Your task to perform on an android device: change the upload size in google photos Image 0: 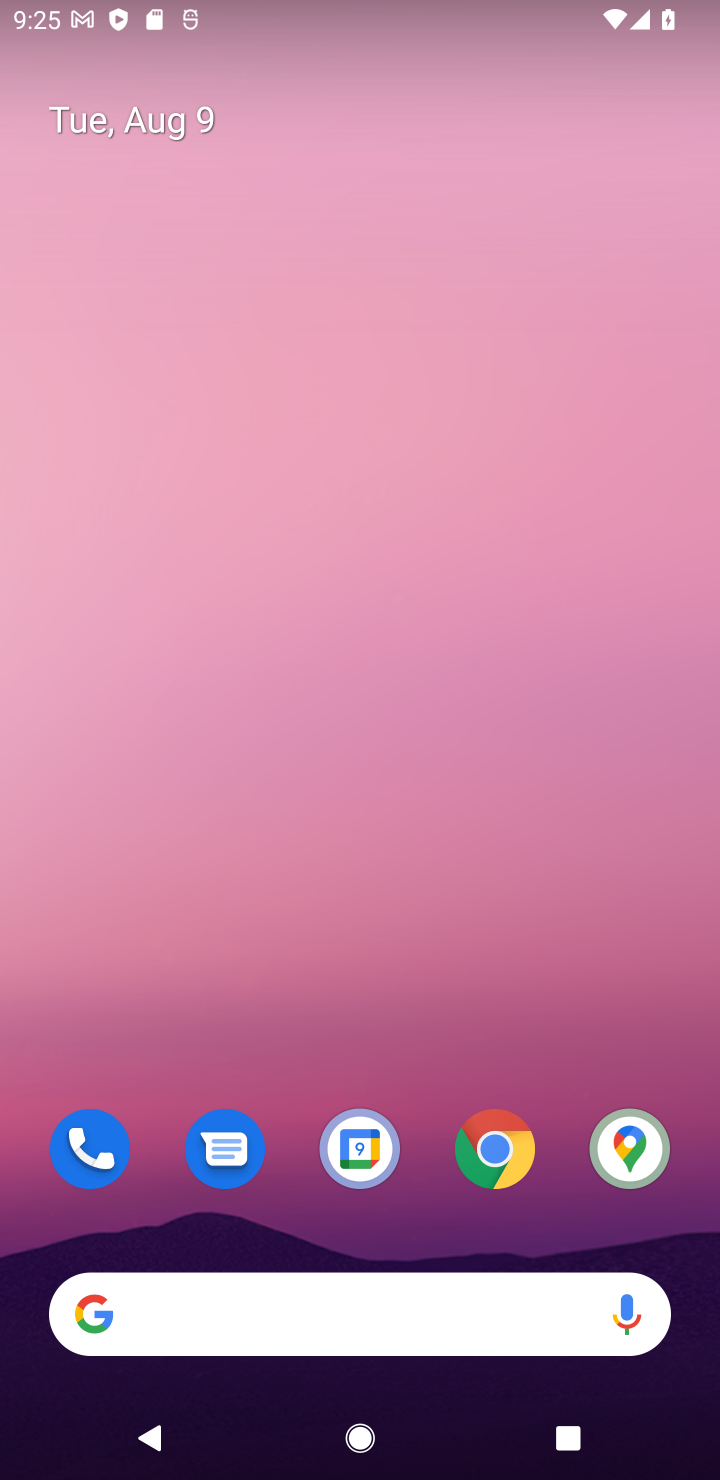
Step 0: drag from (368, 1222) to (530, 202)
Your task to perform on an android device: change the upload size in google photos Image 1: 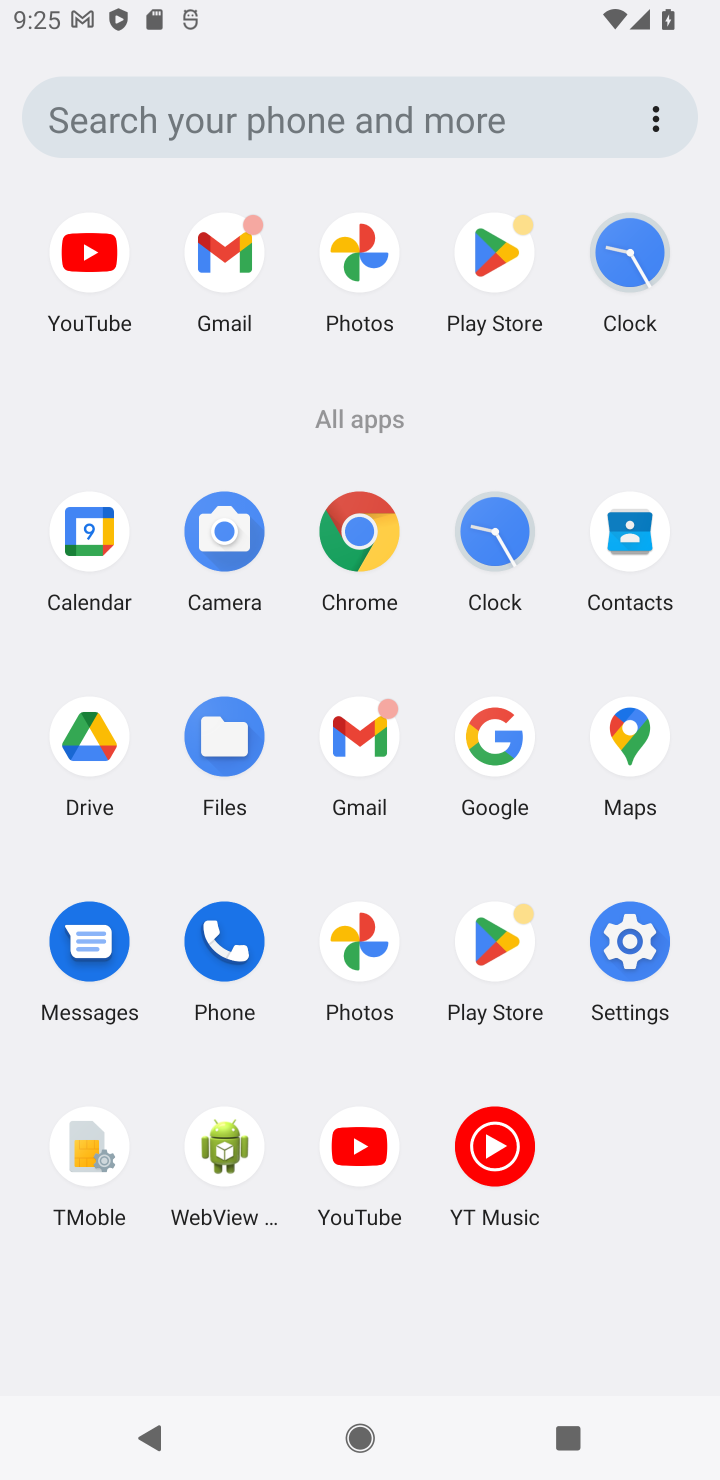
Step 1: click (364, 957)
Your task to perform on an android device: change the upload size in google photos Image 2: 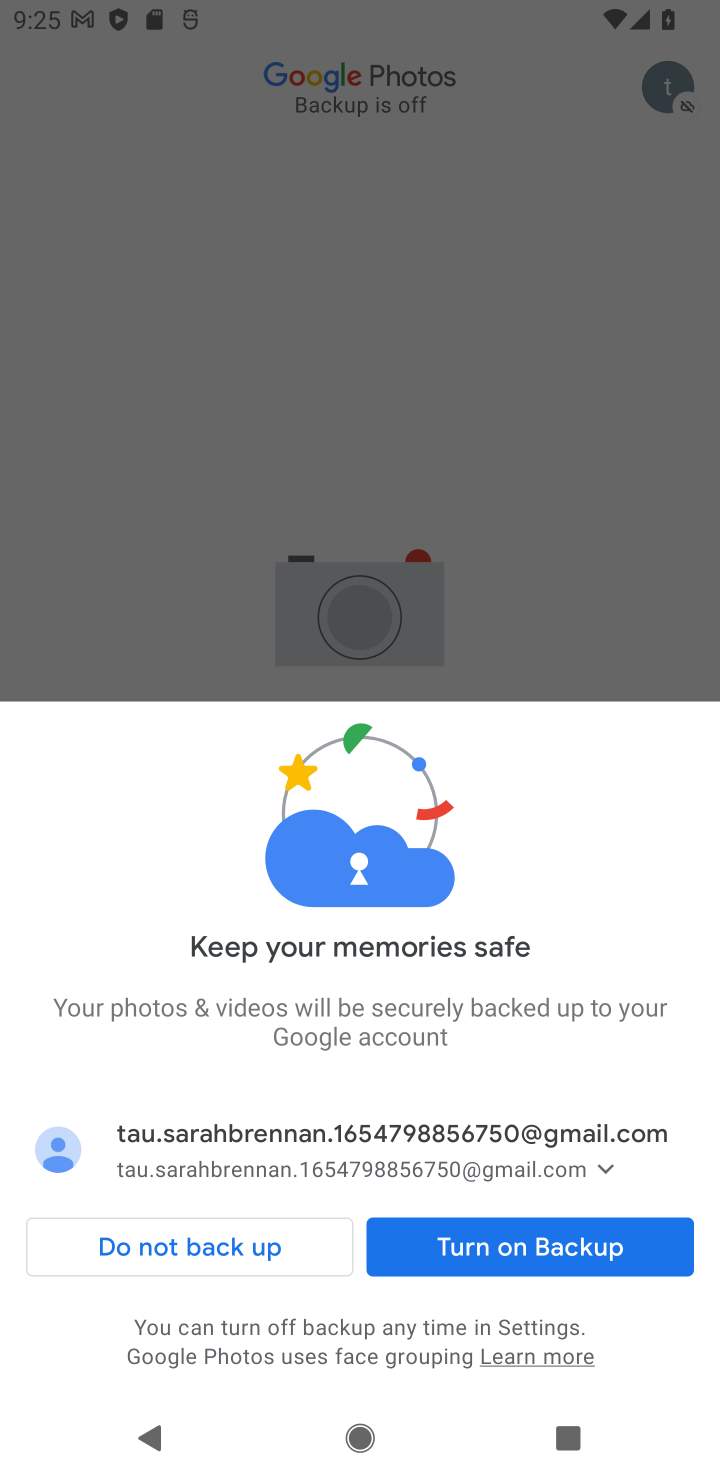
Step 2: click (199, 1249)
Your task to perform on an android device: change the upload size in google photos Image 3: 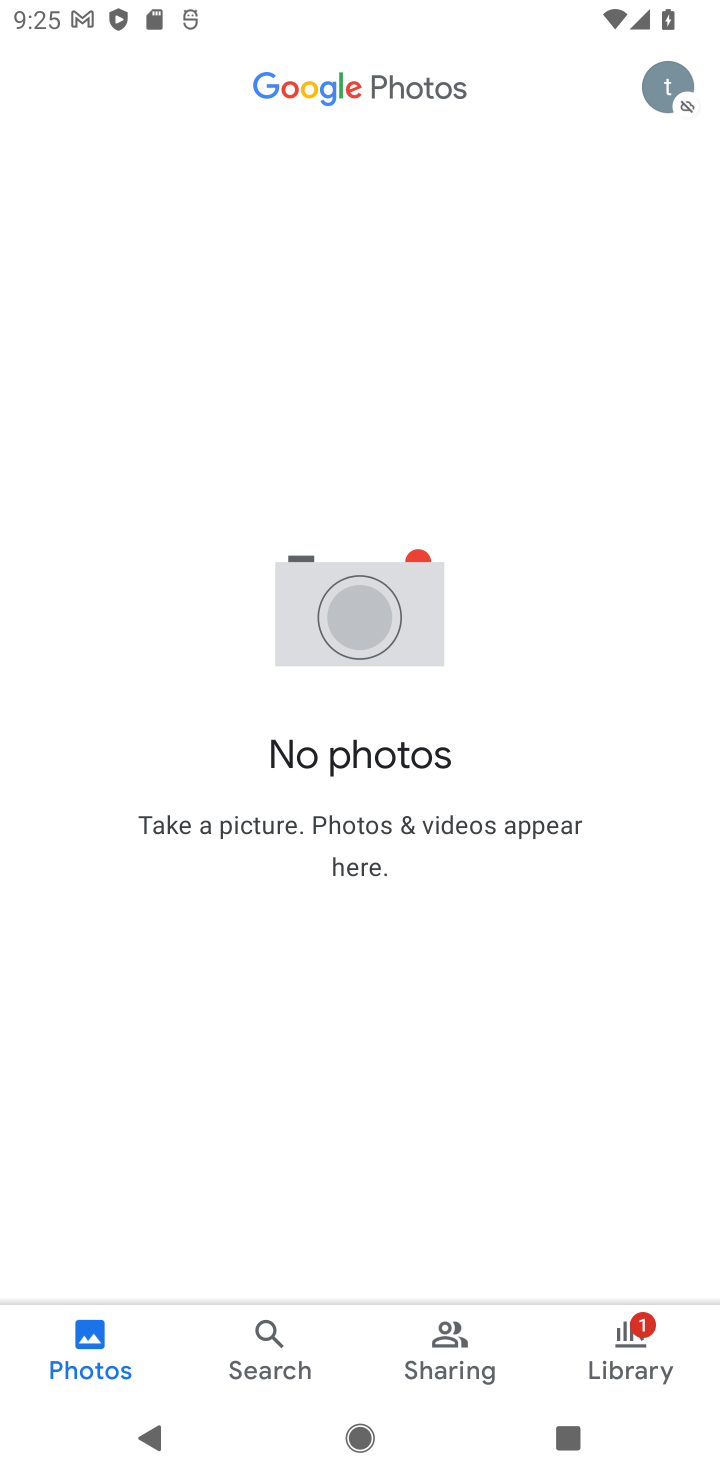
Step 3: click (678, 70)
Your task to perform on an android device: change the upload size in google photos Image 4: 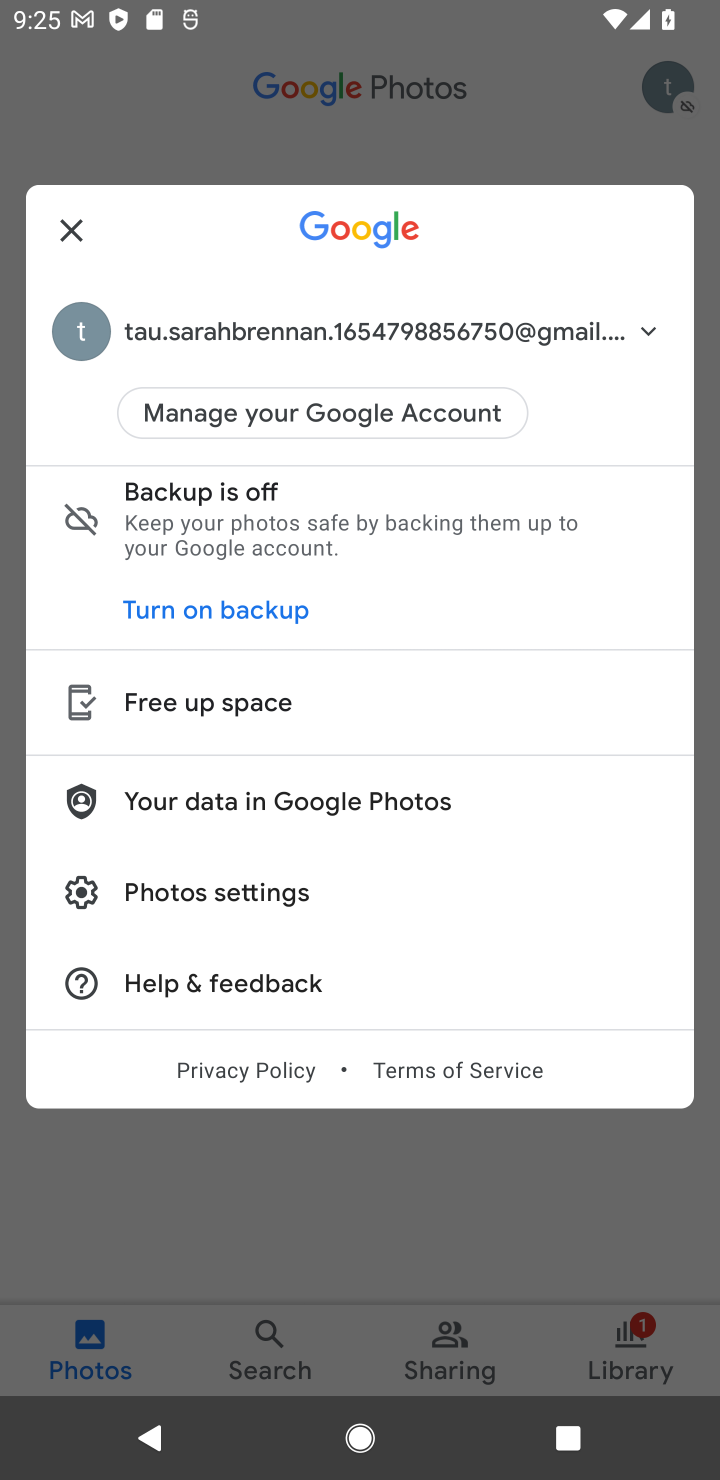
Step 4: click (214, 896)
Your task to perform on an android device: change the upload size in google photos Image 5: 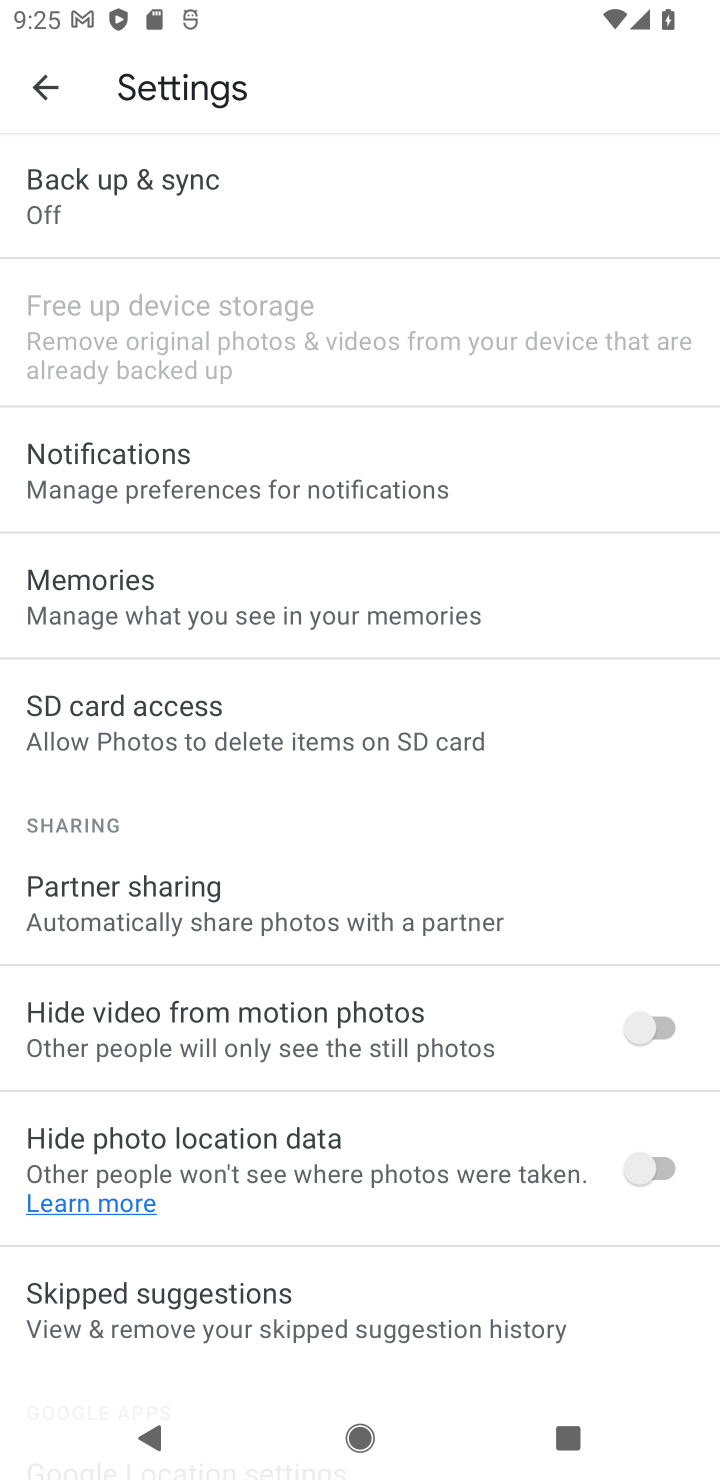
Step 5: click (276, 183)
Your task to perform on an android device: change the upload size in google photos Image 6: 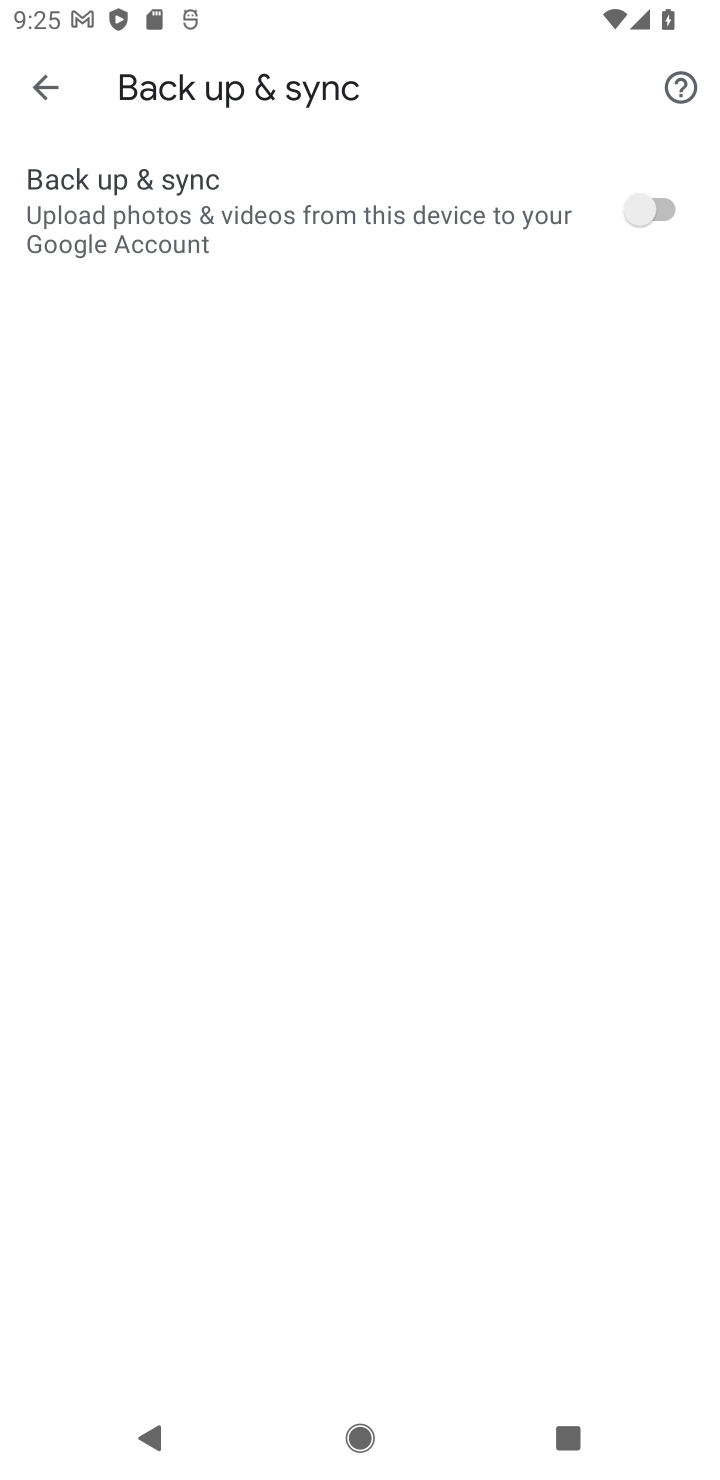
Step 6: click (619, 215)
Your task to perform on an android device: change the upload size in google photos Image 7: 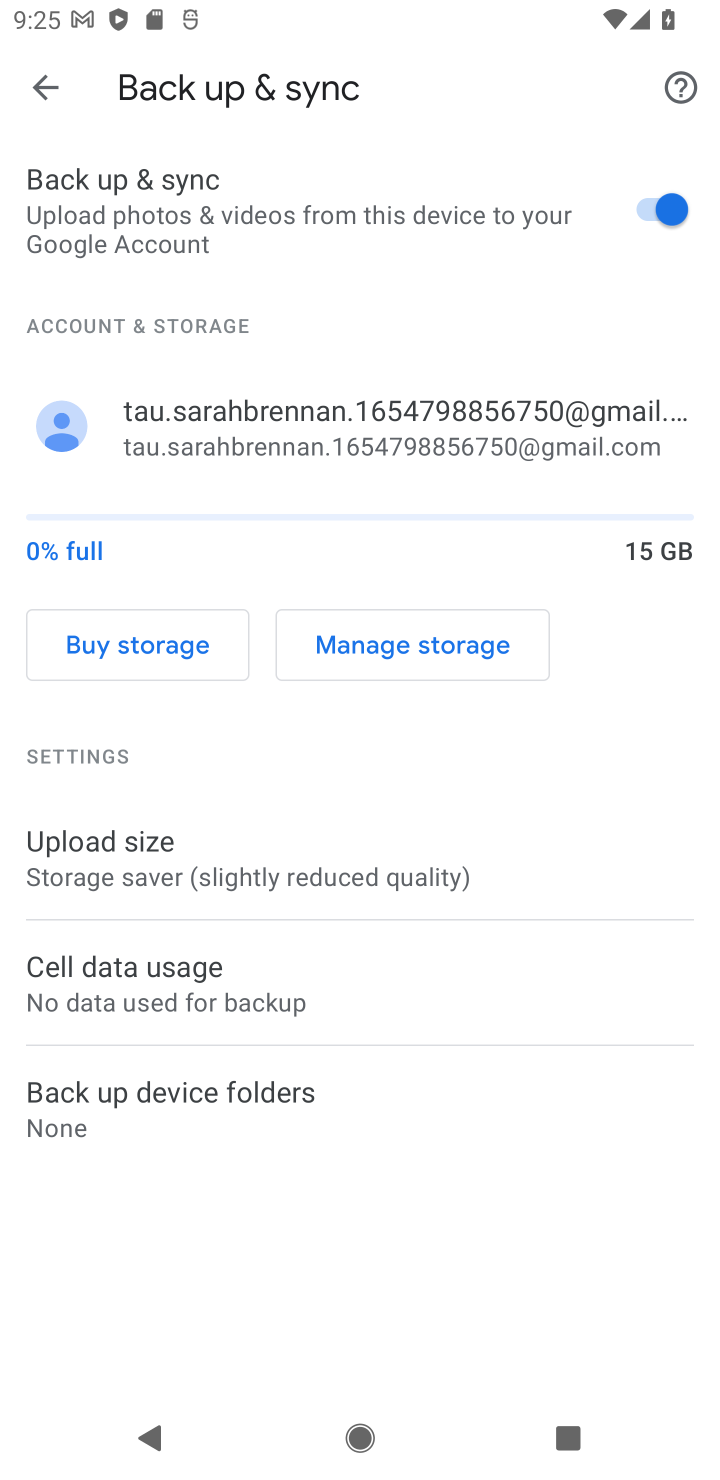
Step 7: click (85, 860)
Your task to perform on an android device: change the upload size in google photos Image 8: 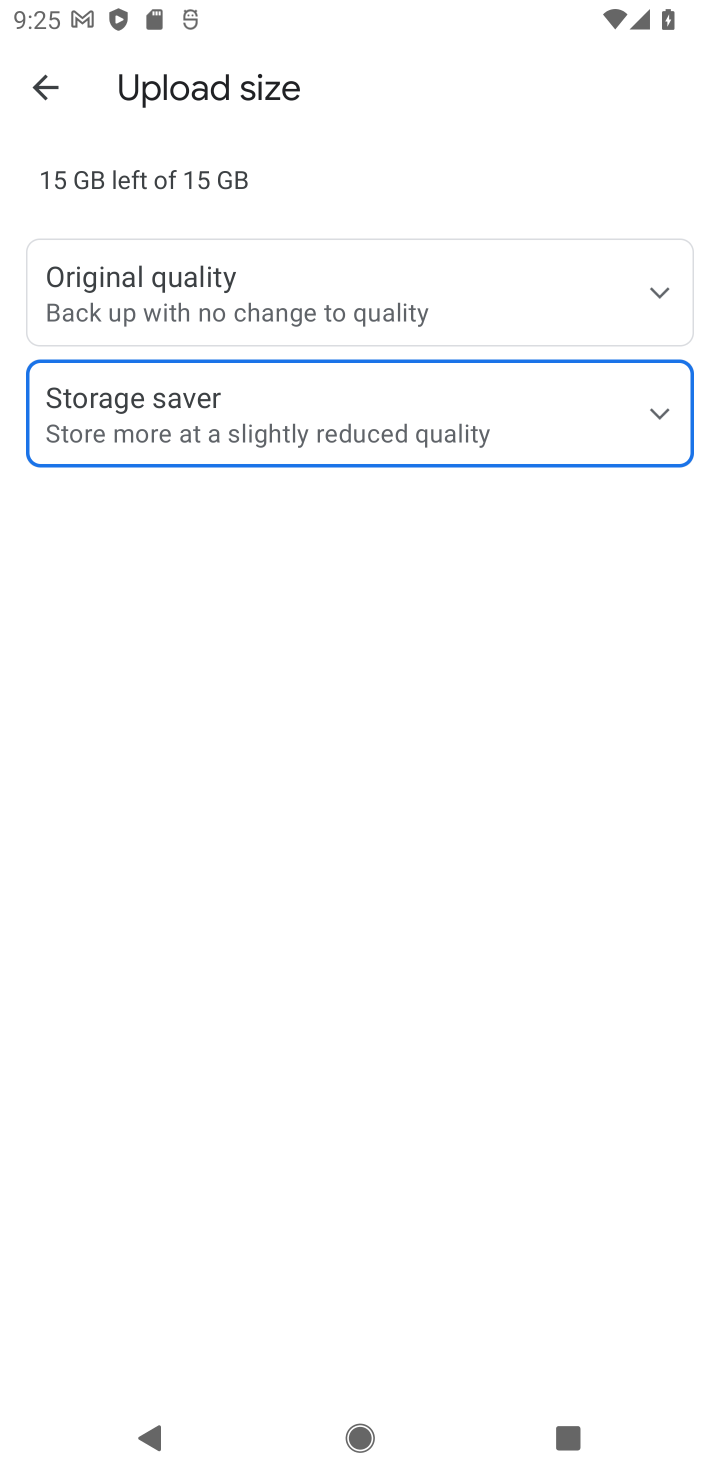
Step 8: click (237, 294)
Your task to perform on an android device: change the upload size in google photos Image 9: 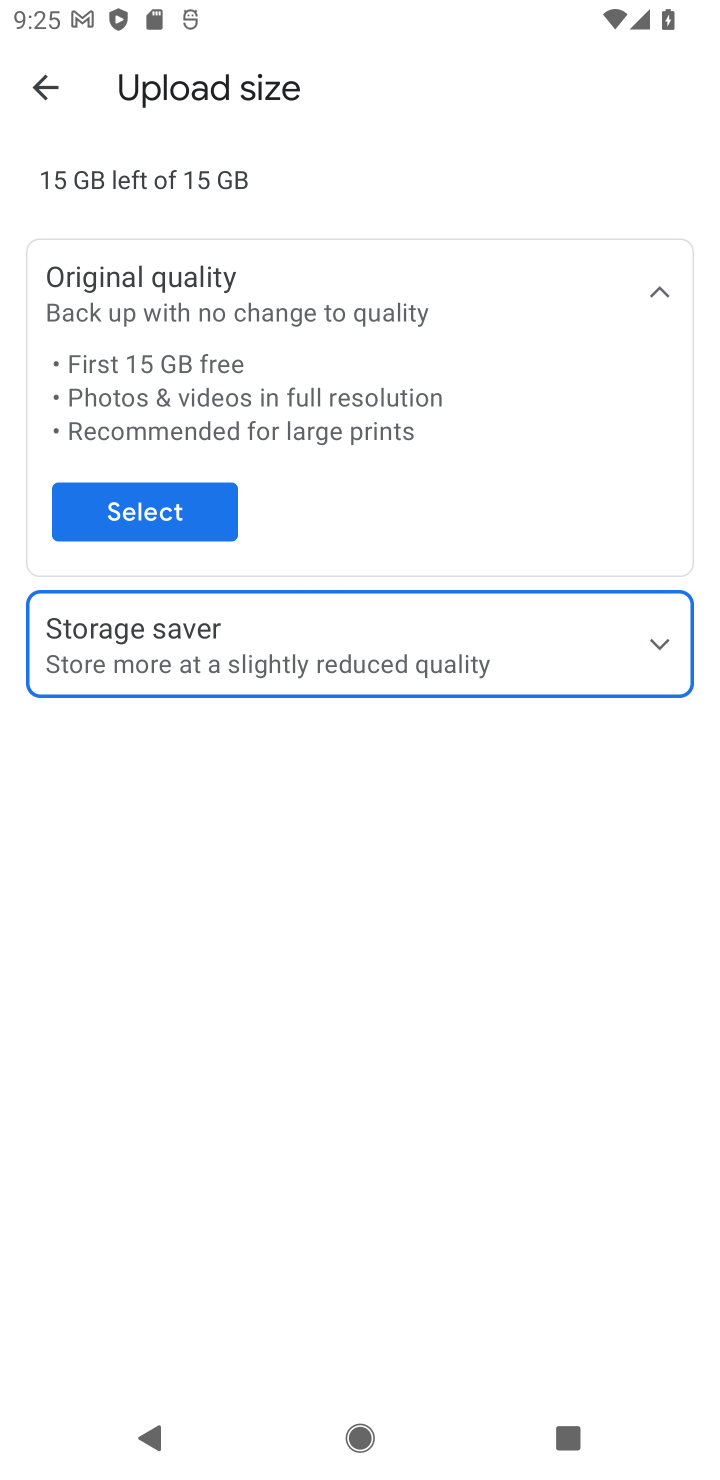
Step 9: task complete